Your task to perform on an android device: open a bookmark in the chrome app Image 0: 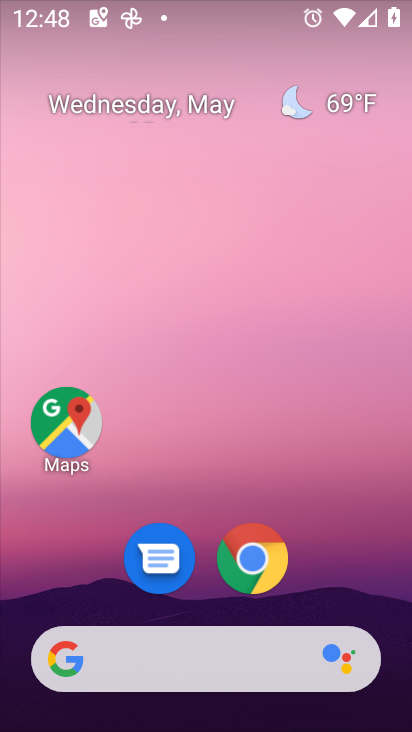
Step 0: drag from (303, 257) to (244, 40)
Your task to perform on an android device: open a bookmark in the chrome app Image 1: 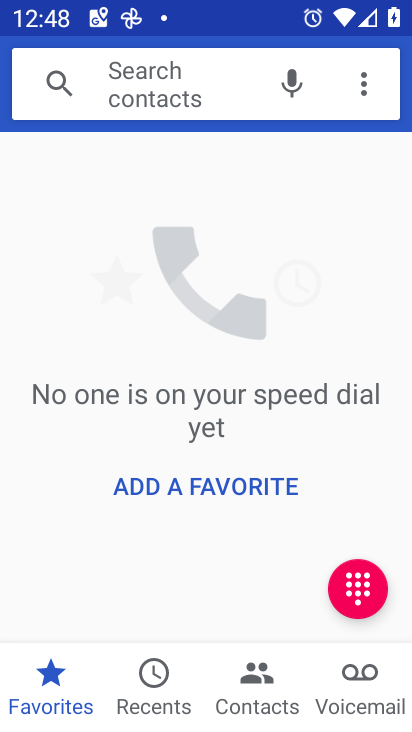
Step 1: press home button
Your task to perform on an android device: open a bookmark in the chrome app Image 2: 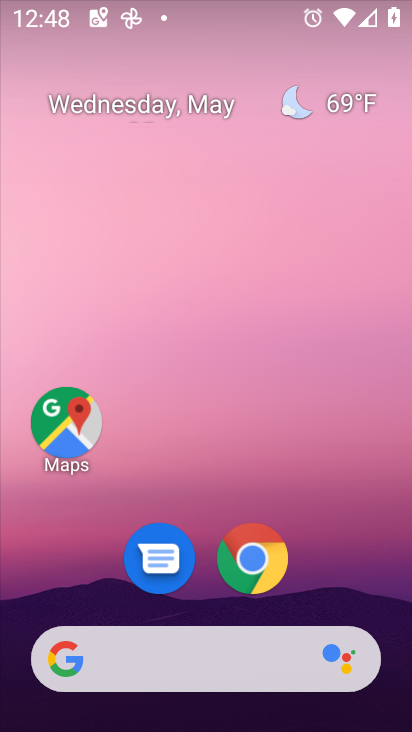
Step 2: drag from (374, 658) to (337, 209)
Your task to perform on an android device: open a bookmark in the chrome app Image 3: 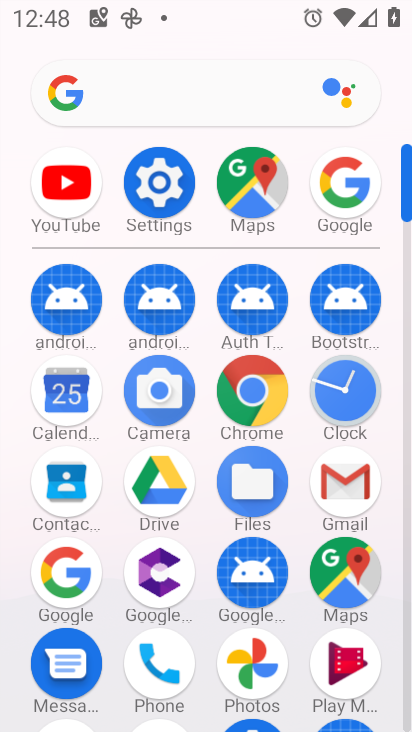
Step 3: click (261, 365)
Your task to perform on an android device: open a bookmark in the chrome app Image 4: 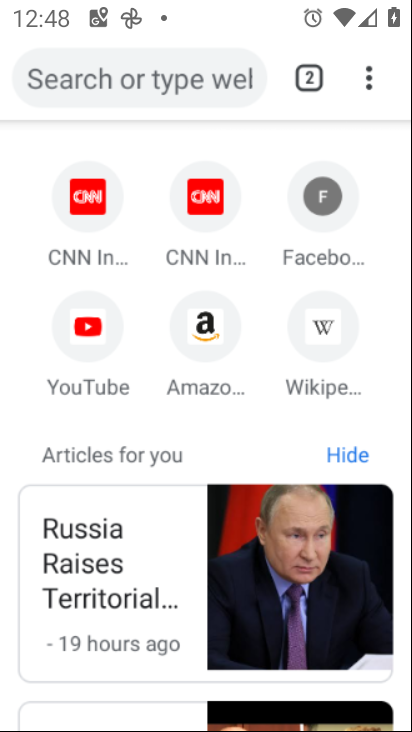
Step 4: click (361, 72)
Your task to perform on an android device: open a bookmark in the chrome app Image 5: 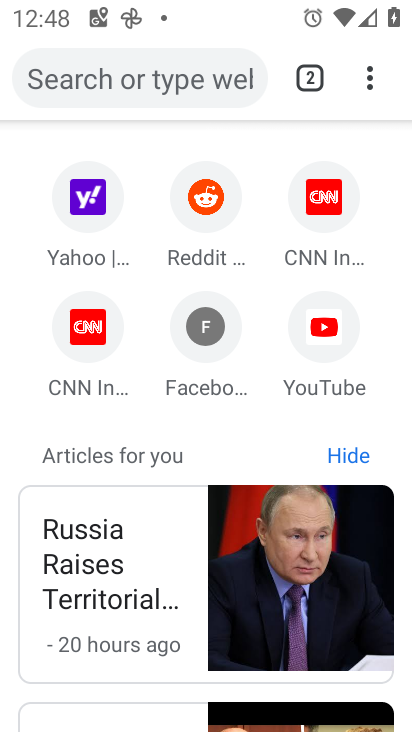
Step 5: click (366, 72)
Your task to perform on an android device: open a bookmark in the chrome app Image 6: 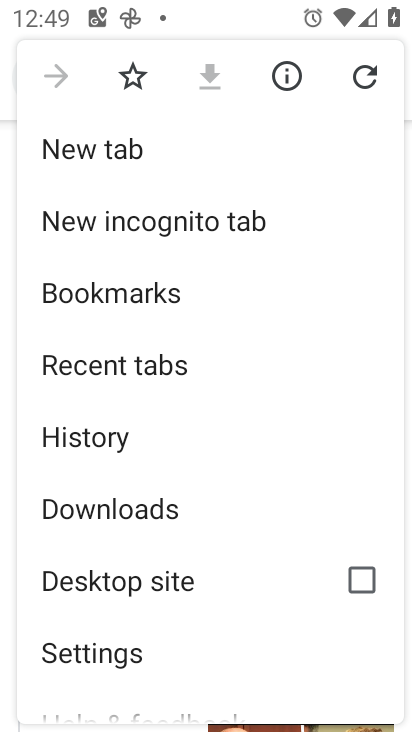
Step 6: click (133, 304)
Your task to perform on an android device: open a bookmark in the chrome app Image 7: 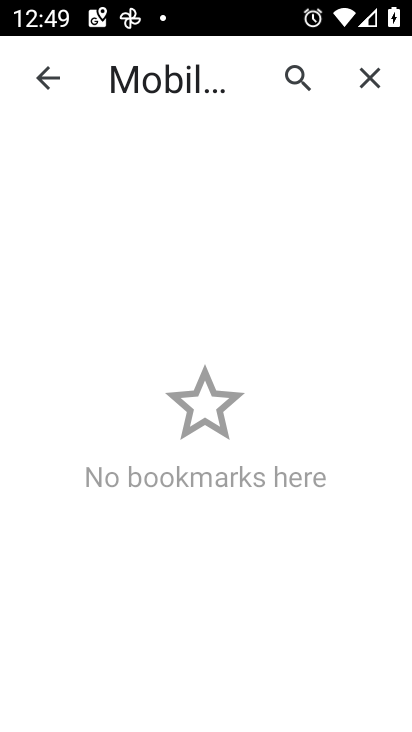
Step 7: task complete